Your task to perform on an android device: toggle notifications settings in the gmail app Image 0: 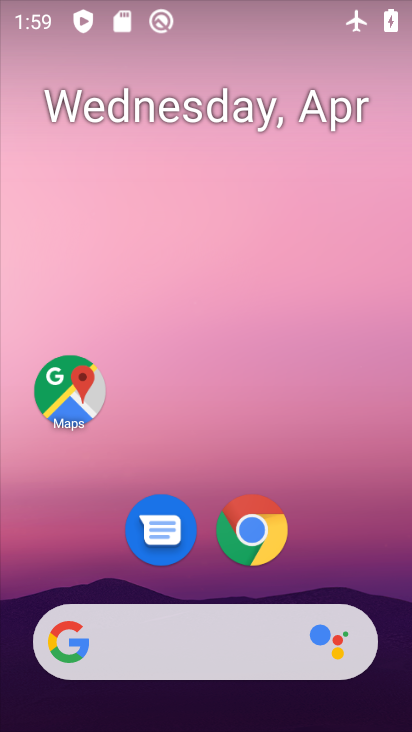
Step 0: drag from (349, 446) to (349, 167)
Your task to perform on an android device: toggle notifications settings in the gmail app Image 1: 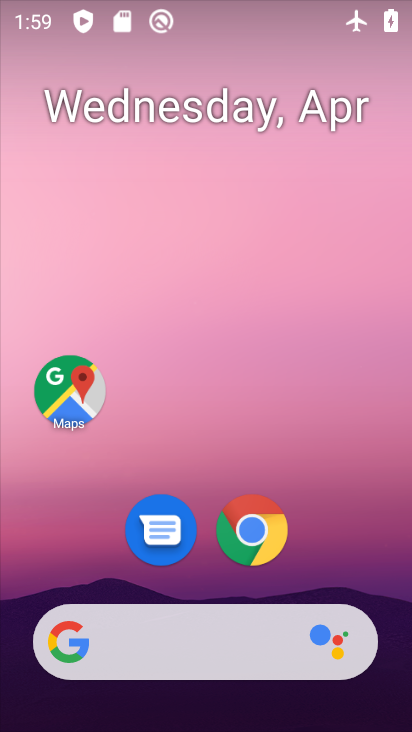
Step 1: drag from (323, 516) to (317, 139)
Your task to perform on an android device: toggle notifications settings in the gmail app Image 2: 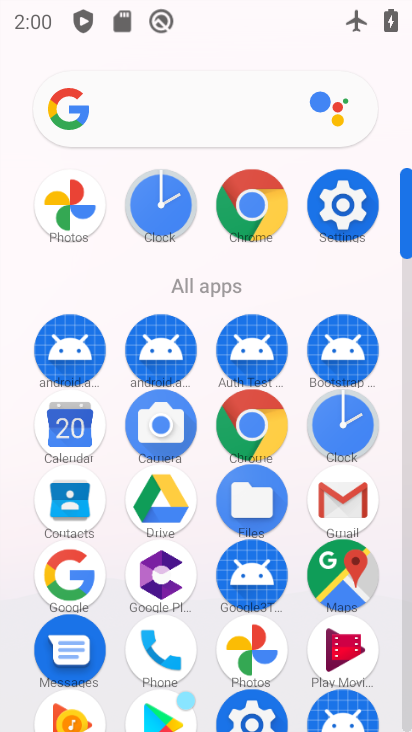
Step 2: click (351, 497)
Your task to perform on an android device: toggle notifications settings in the gmail app Image 3: 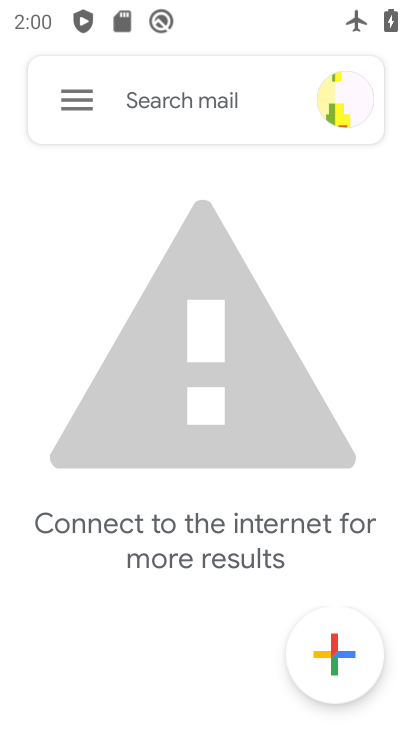
Step 3: click (71, 112)
Your task to perform on an android device: toggle notifications settings in the gmail app Image 4: 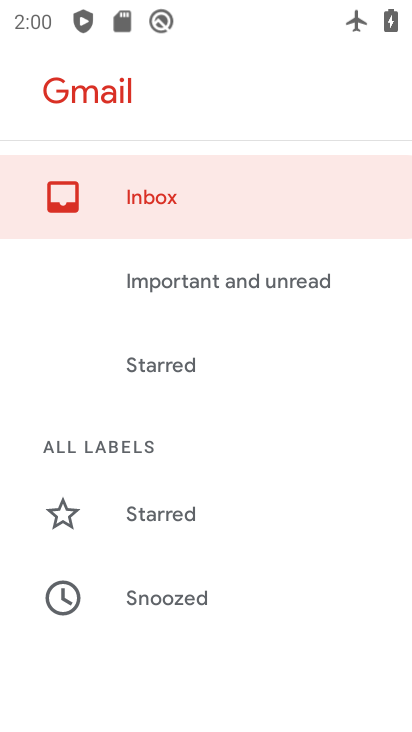
Step 4: drag from (215, 518) to (266, 158)
Your task to perform on an android device: toggle notifications settings in the gmail app Image 5: 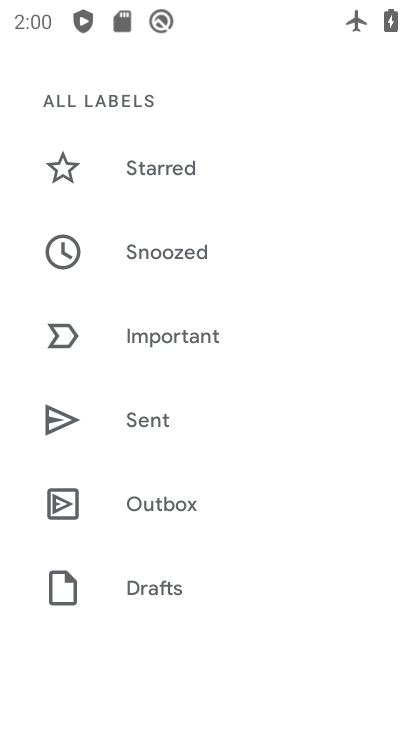
Step 5: drag from (232, 500) to (285, 223)
Your task to perform on an android device: toggle notifications settings in the gmail app Image 6: 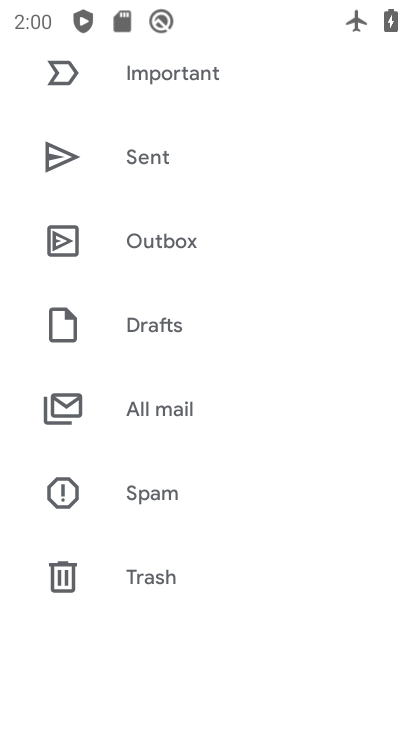
Step 6: drag from (224, 568) to (287, 266)
Your task to perform on an android device: toggle notifications settings in the gmail app Image 7: 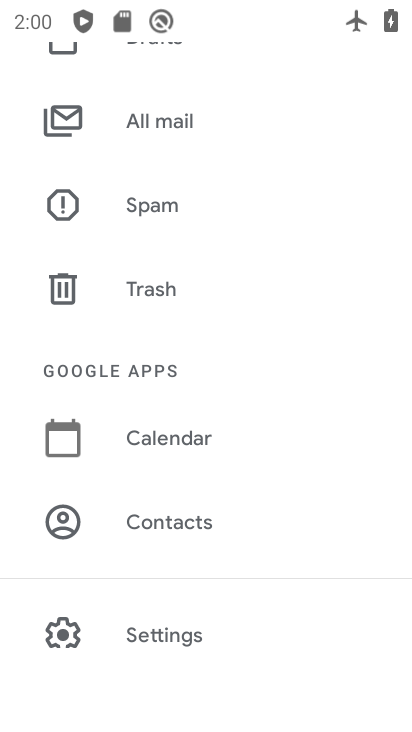
Step 7: drag from (178, 594) to (264, 288)
Your task to perform on an android device: toggle notifications settings in the gmail app Image 8: 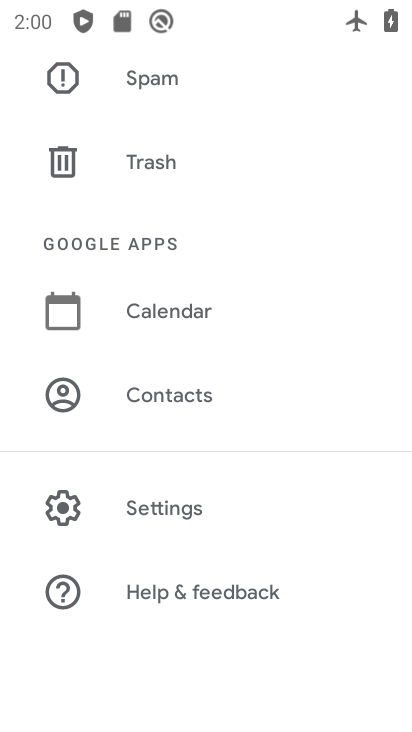
Step 8: click (123, 504)
Your task to perform on an android device: toggle notifications settings in the gmail app Image 9: 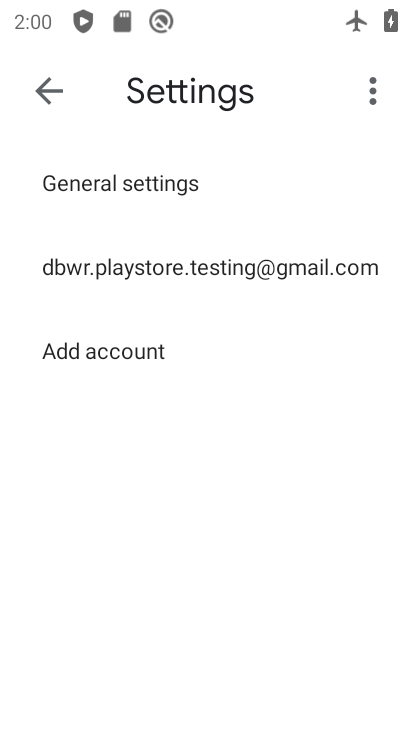
Step 9: click (183, 267)
Your task to perform on an android device: toggle notifications settings in the gmail app Image 10: 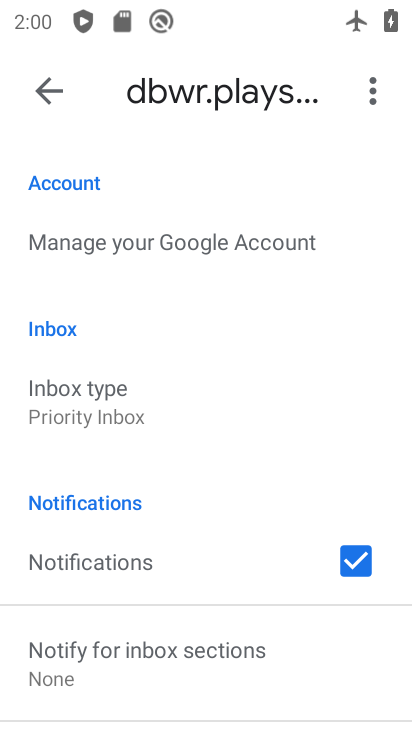
Step 10: drag from (238, 668) to (245, 359)
Your task to perform on an android device: toggle notifications settings in the gmail app Image 11: 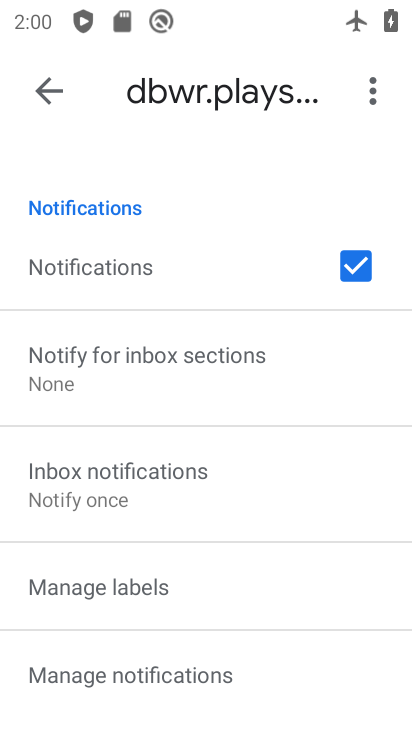
Step 11: drag from (260, 585) to (281, 359)
Your task to perform on an android device: toggle notifications settings in the gmail app Image 12: 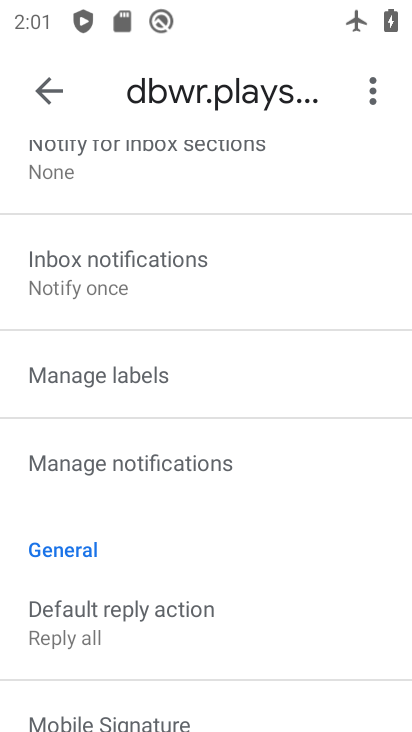
Step 12: click (198, 466)
Your task to perform on an android device: toggle notifications settings in the gmail app Image 13: 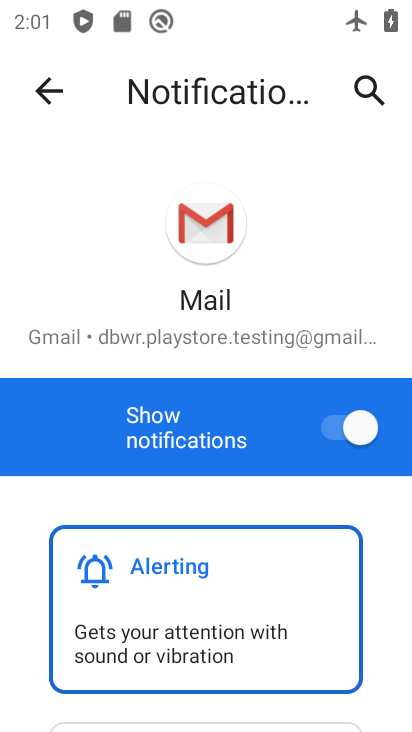
Step 13: click (327, 425)
Your task to perform on an android device: toggle notifications settings in the gmail app Image 14: 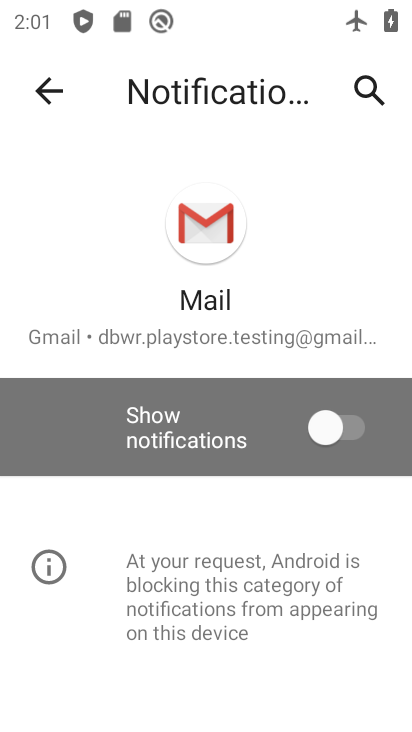
Step 14: task complete